Your task to perform on an android device: turn on data saver in the chrome app Image 0: 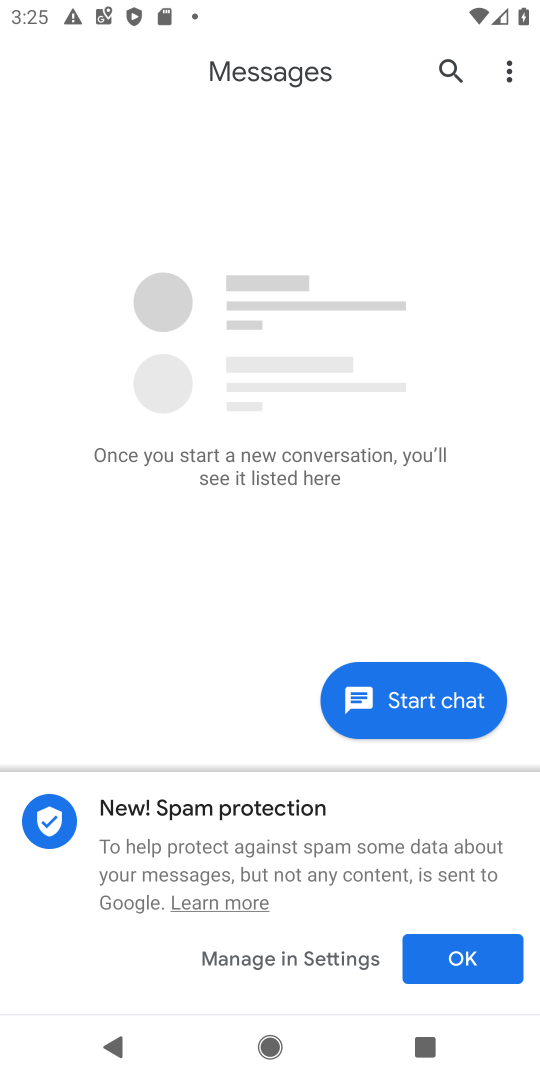
Step 0: press back button
Your task to perform on an android device: turn on data saver in the chrome app Image 1: 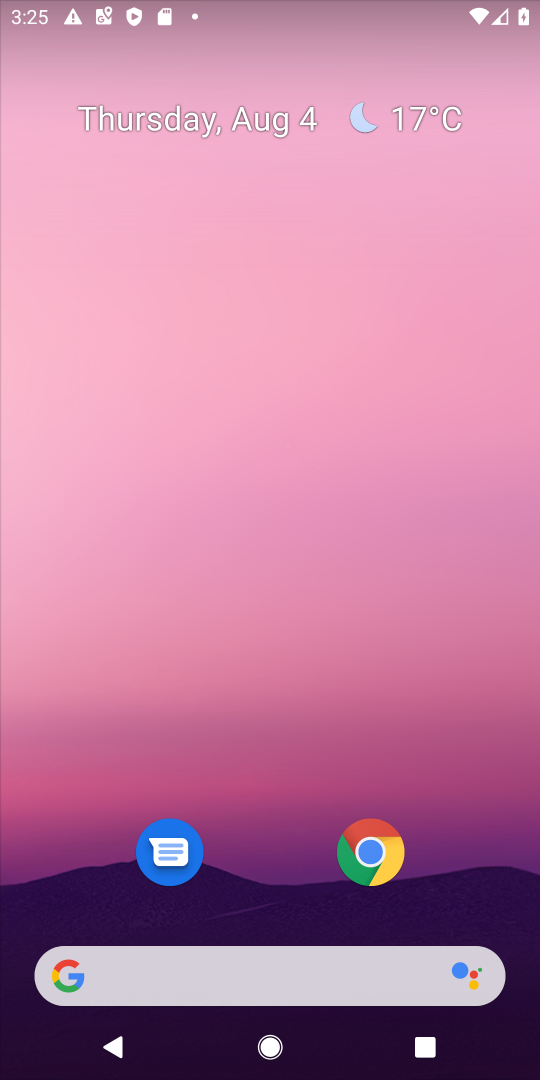
Step 1: click (384, 845)
Your task to perform on an android device: turn on data saver in the chrome app Image 2: 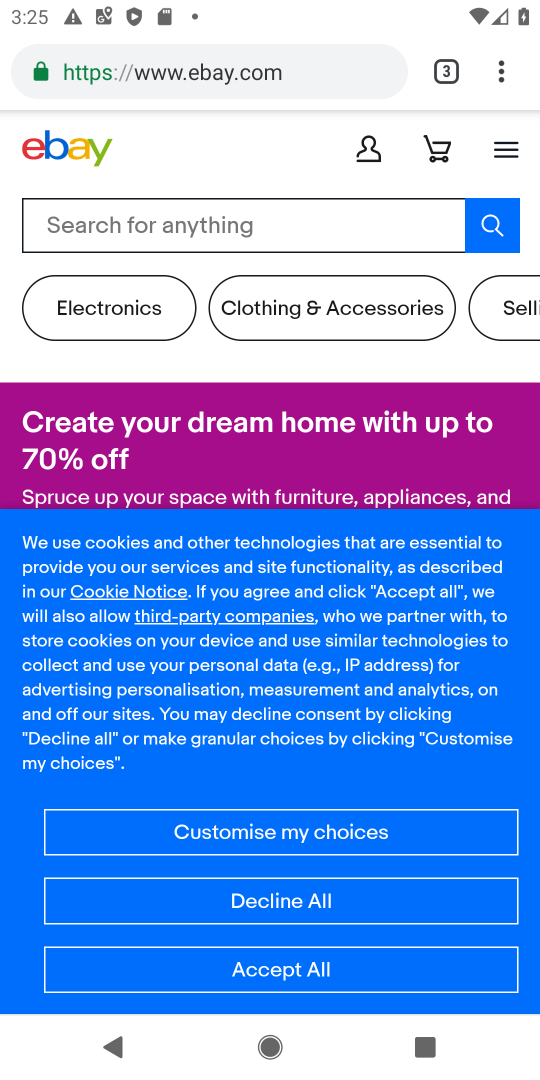
Step 2: drag from (498, 63) to (245, 905)
Your task to perform on an android device: turn on data saver in the chrome app Image 3: 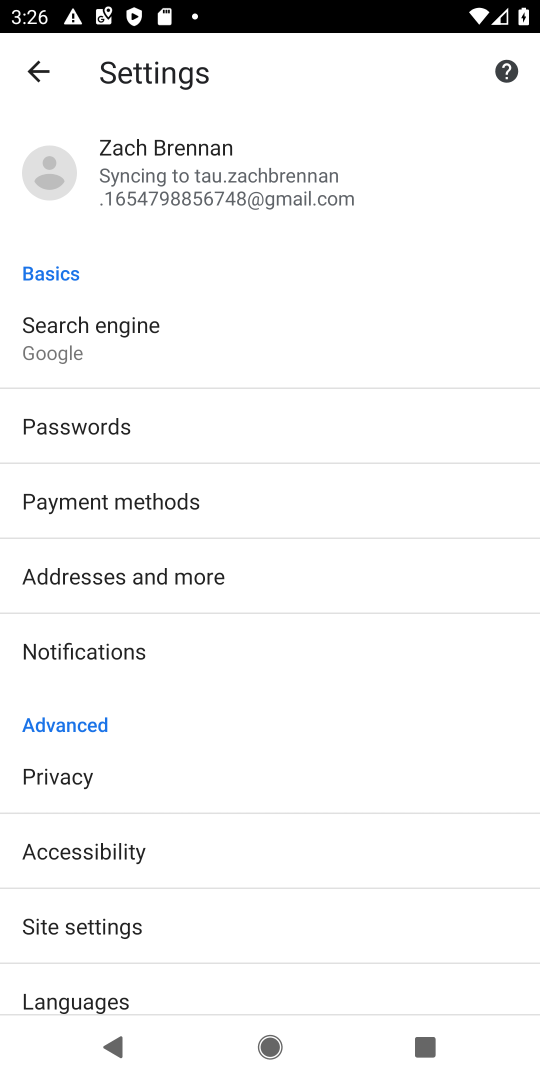
Step 3: drag from (245, 884) to (316, 189)
Your task to perform on an android device: turn on data saver in the chrome app Image 4: 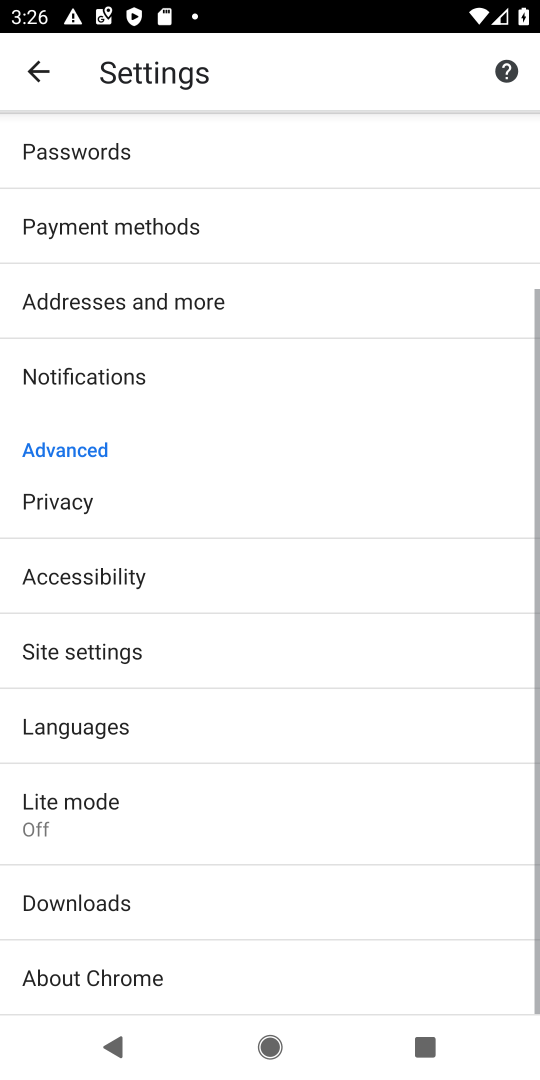
Step 4: click (48, 796)
Your task to perform on an android device: turn on data saver in the chrome app Image 5: 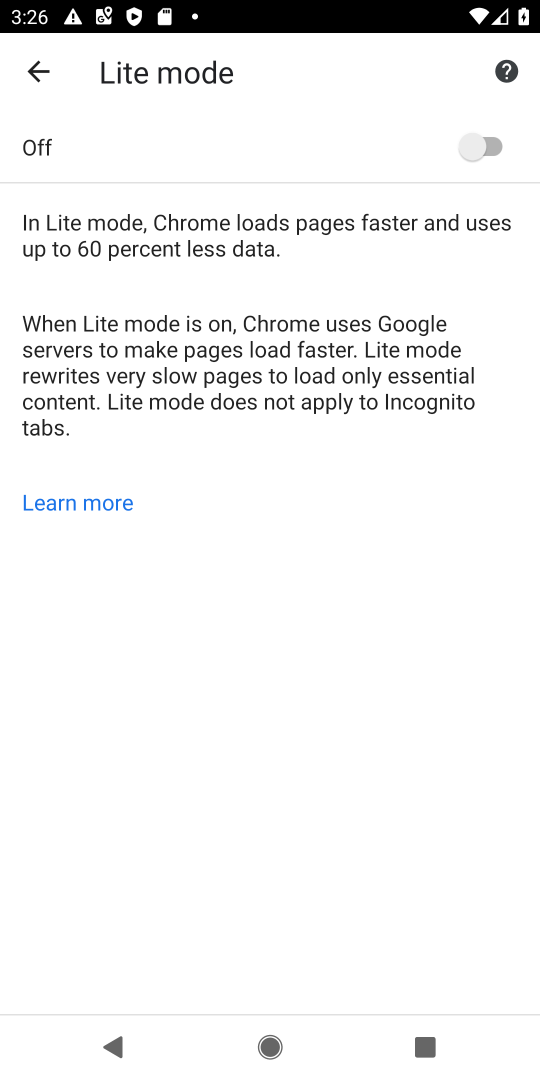
Step 5: click (485, 148)
Your task to perform on an android device: turn on data saver in the chrome app Image 6: 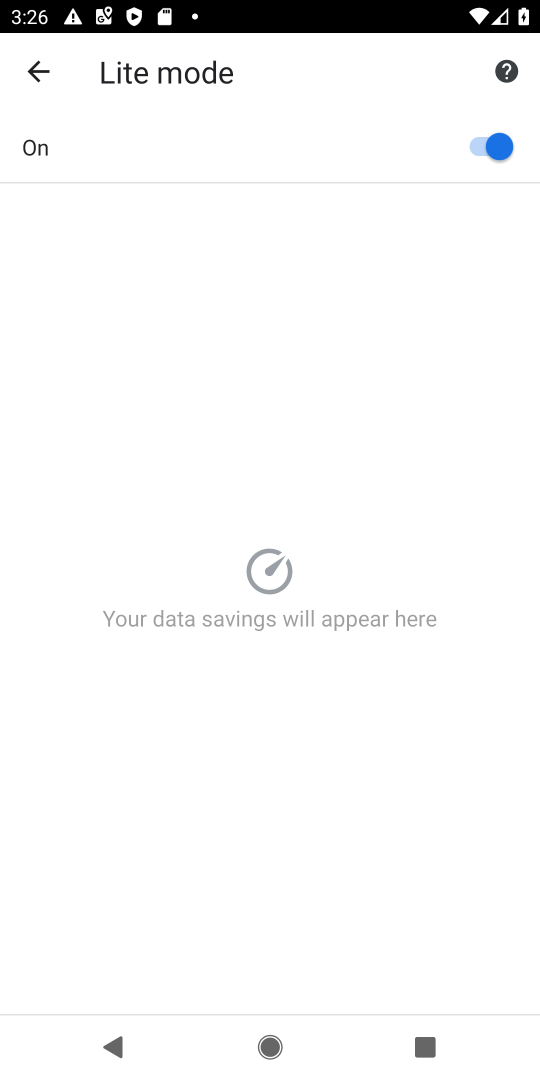
Step 6: task complete